Your task to perform on an android device: Search for a nightstand on IKEA. Image 0: 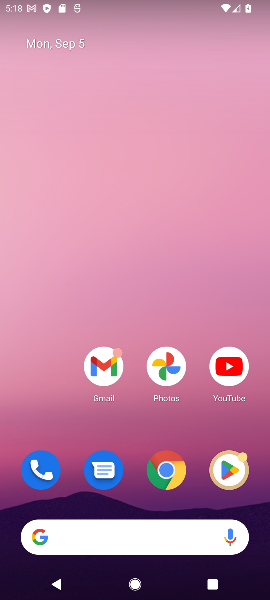
Step 0: click (127, 550)
Your task to perform on an android device: Search for a nightstand on IKEA. Image 1: 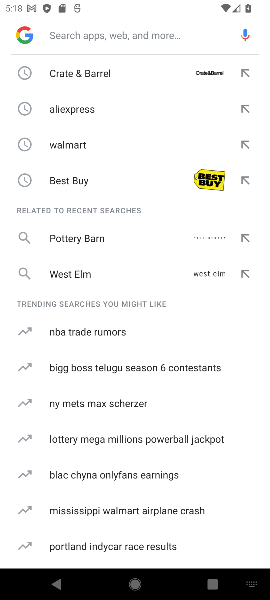
Step 1: type "ikea"
Your task to perform on an android device: Search for a nightstand on IKEA. Image 2: 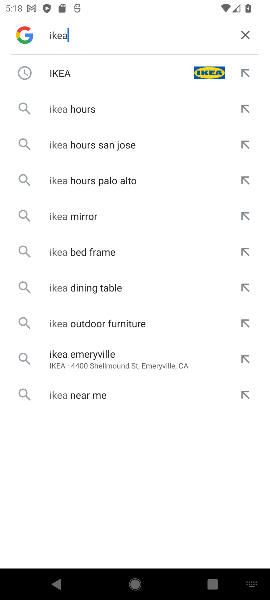
Step 2: press enter
Your task to perform on an android device: Search for a nightstand on IKEA. Image 3: 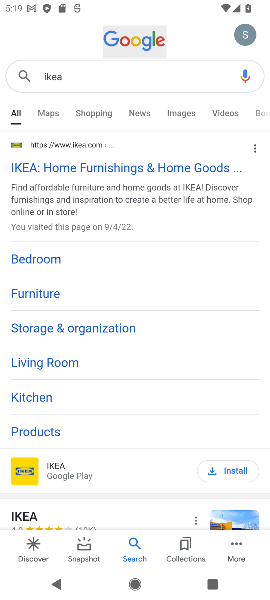
Step 3: click (138, 166)
Your task to perform on an android device: Search for a nightstand on IKEA. Image 4: 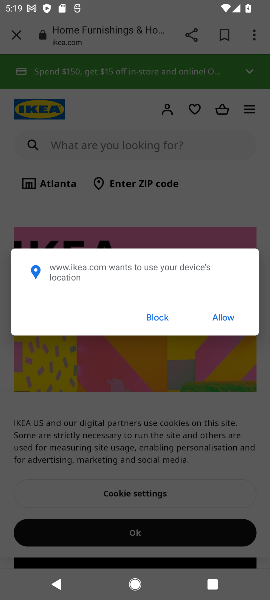
Step 4: click (164, 312)
Your task to perform on an android device: Search for a nightstand on IKEA. Image 5: 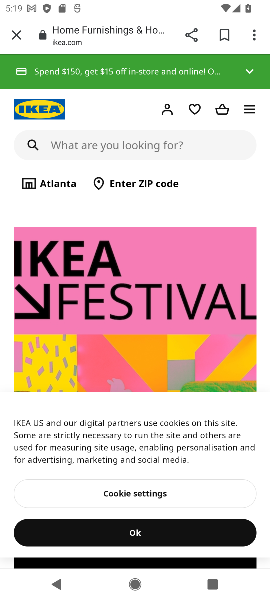
Step 5: click (157, 312)
Your task to perform on an android device: Search for a nightstand on IKEA. Image 6: 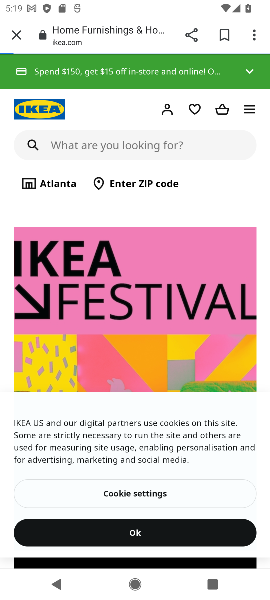
Step 6: click (14, 31)
Your task to perform on an android device: Search for a nightstand on IKEA. Image 7: 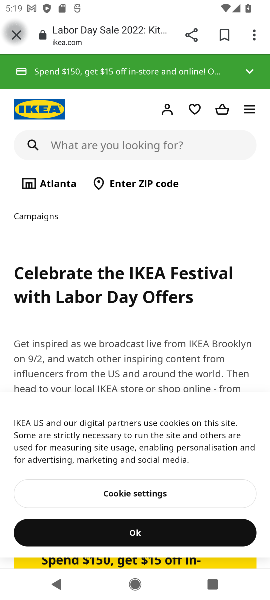
Step 7: click (141, 140)
Your task to perform on an android device: Search for a nightstand on IKEA. Image 8: 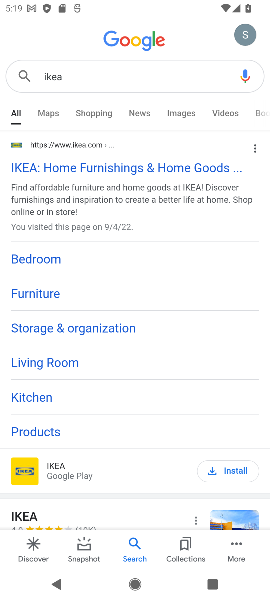
Step 8: click (120, 163)
Your task to perform on an android device: Search for a nightstand on IKEA. Image 9: 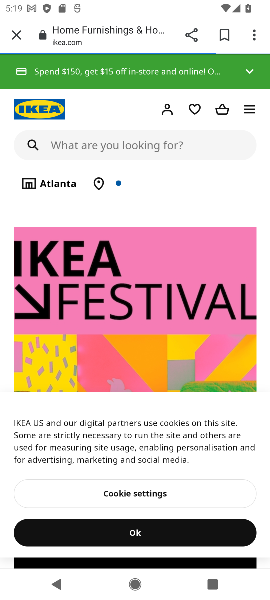
Step 9: click (161, 149)
Your task to perform on an android device: Search for a nightstand on IKEA. Image 10: 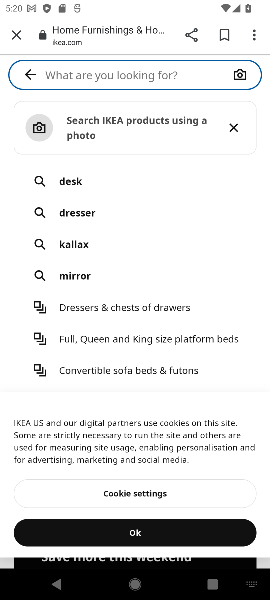
Step 10: type "nightstand"
Your task to perform on an android device: Search for a nightstand on IKEA. Image 11: 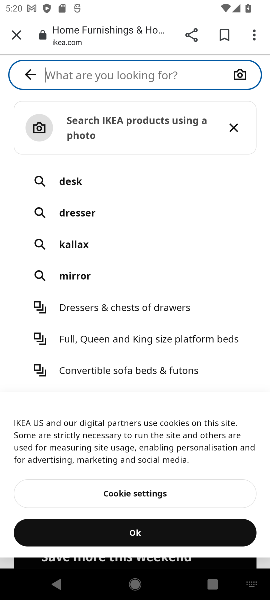
Step 11: type ""
Your task to perform on an android device: Search for a nightstand on IKEA. Image 12: 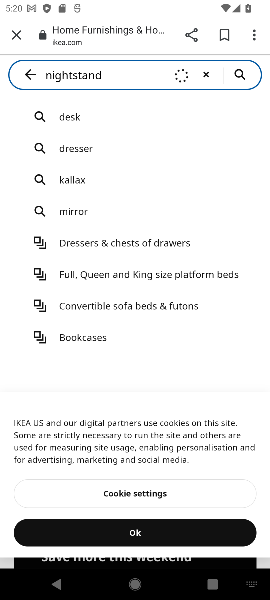
Step 12: type ""
Your task to perform on an android device: Search for a nightstand on IKEA. Image 13: 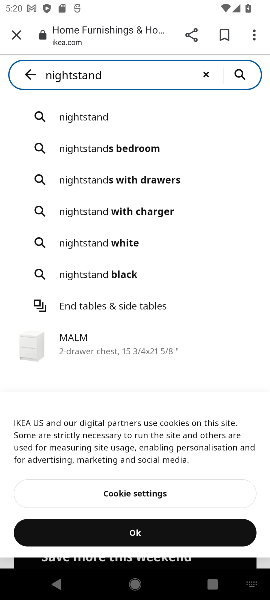
Step 13: press enter
Your task to perform on an android device: Search for a nightstand on IKEA. Image 14: 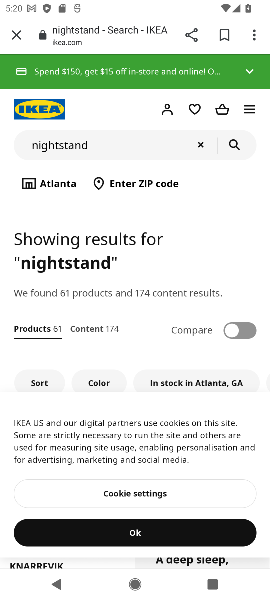
Step 14: drag from (229, 259) to (225, 142)
Your task to perform on an android device: Search for a nightstand on IKEA. Image 15: 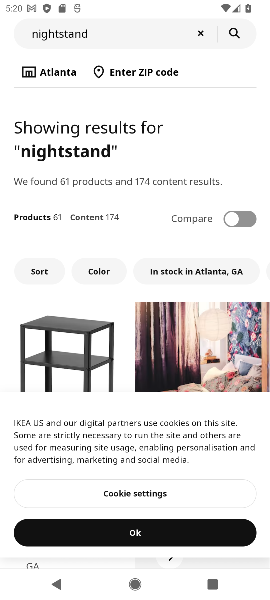
Step 15: drag from (243, 293) to (241, 120)
Your task to perform on an android device: Search for a nightstand on IKEA. Image 16: 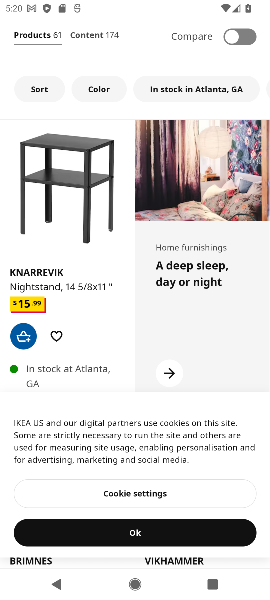
Step 16: drag from (218, 307) to (220, 249)
Your task to perform on an android device: Search for a nightstand on IKEA. Image 17: 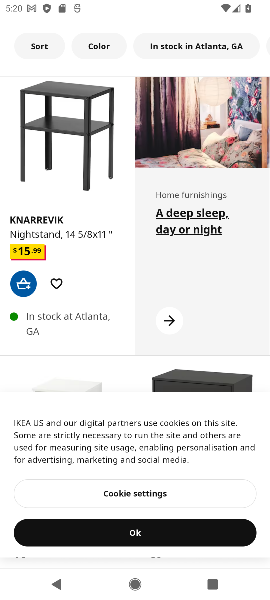
Step 17: drag from (125, 349) to (115, 137)
Your task to perform on an android device: Search for a nightstand on IKEA. Image 18: 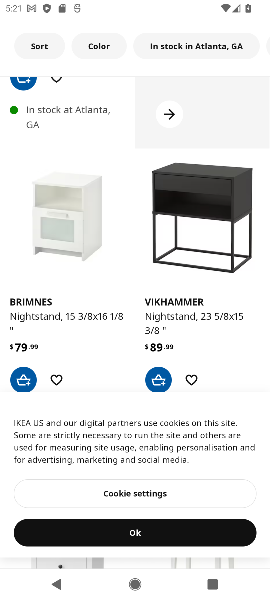
Step 18: drag from (121, 127) to (132, 75)
Your task to perform on an android device: Search for a nightstand on IKEA. Image 19: 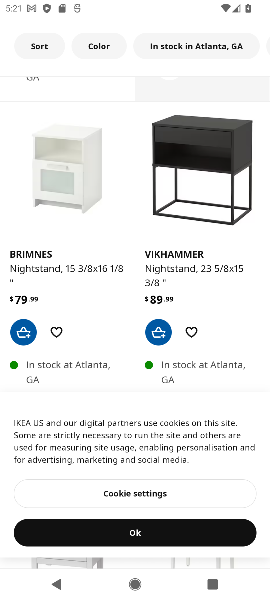
Step 19: drag from (126, 327) to (142, 178)
Your task to perform on an android device: Search for a nightstand on IKEA. Image 20: 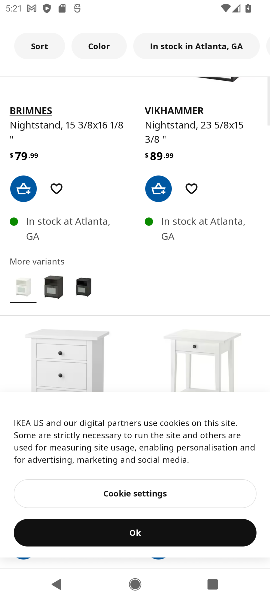
Step 20: drag from (131, 353) to (148, 200)
Your task to perform on an android device: Search for a nightstand on IKEA. Image 21: 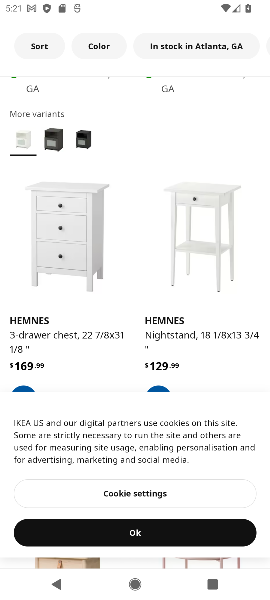
Step 21: drag from (139, 216) to (132, 272)
Your task to perform on an android device: Search for a nightstand on IKEA. Image 22: 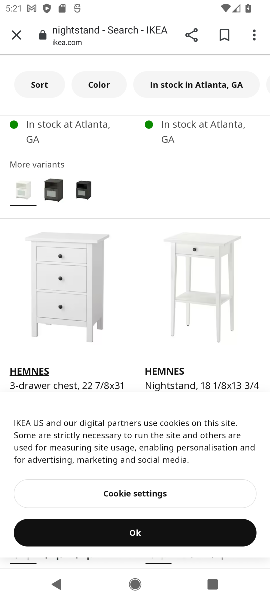
Step 22: click (132, 272)
Your task to perform on an android device: Search for a nightstand on IKEA. Image 23: 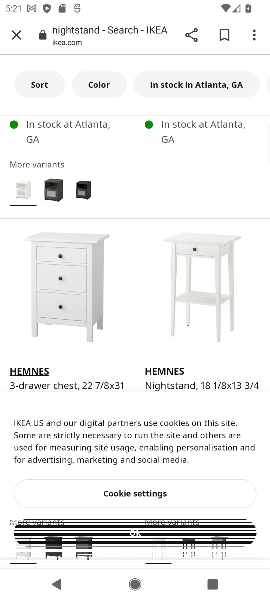
Step 23: click (132, 279)
Your task to perform on an android device: Search for a nightstand on IKEA. Image 24: 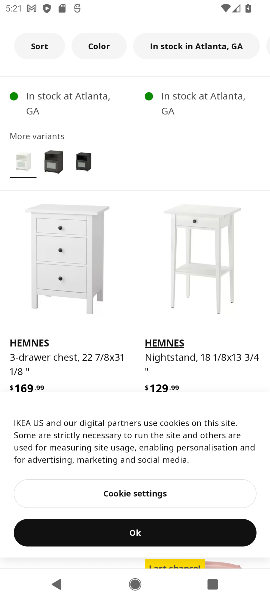
Step 24: click (144, 256)
Your task to perform on an android device: Search for a nightstand on IKEA. Image 25: 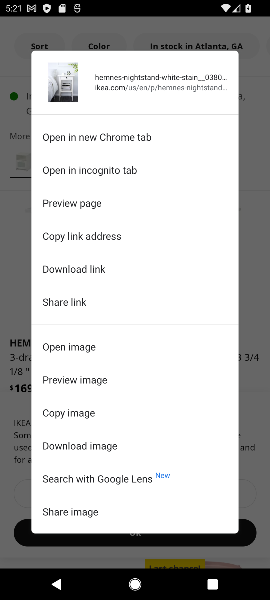
Step 25: click (144, 256)
Your task to perform on an android device: Search for a nightstand on IKEA. Image 26: 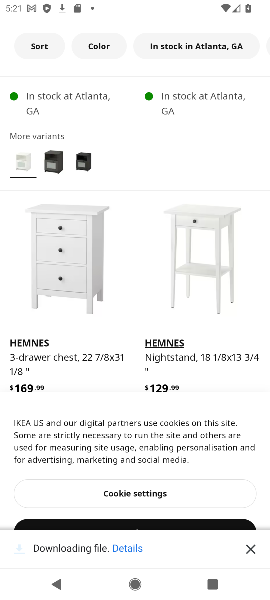
Step 26: task complete